Your task to perform on an android device: turn notification dots off Image 0: 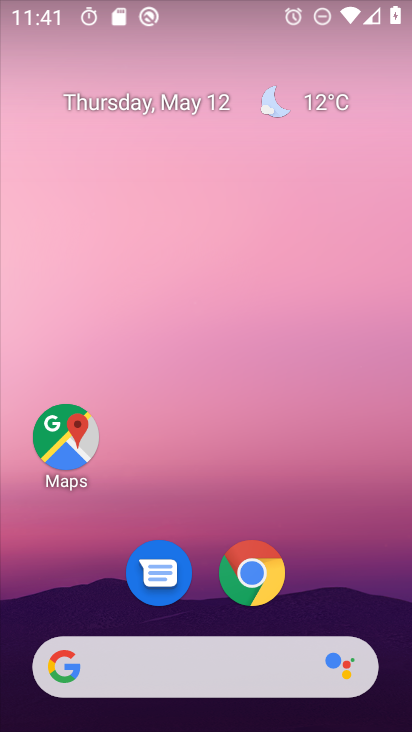
Step 0: drag from (385, 513) to (359, 324)
Your task to perform on an android device: turn notification dots off Image 1: 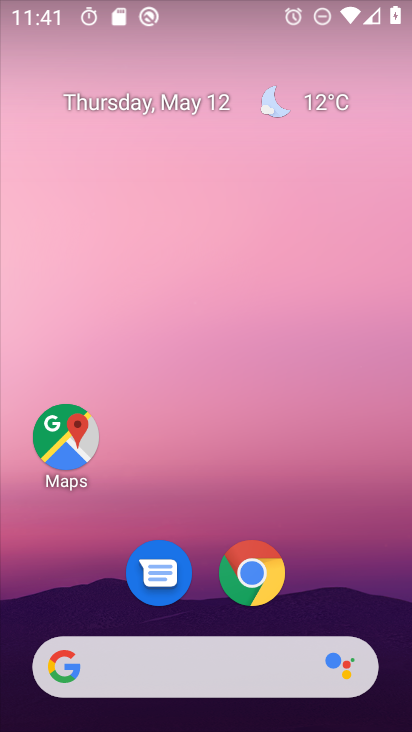
Step 1: drag from (401, 690) to (363, 323)
Your task to perform on an android device: turn notification dots off Image 2: 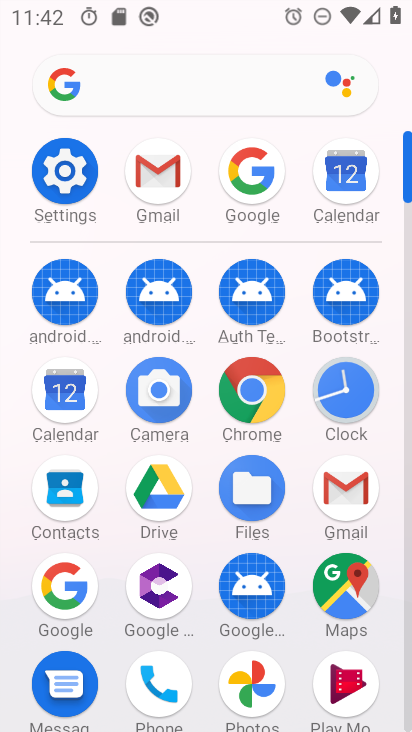
Step 2: click (66, 167)
Your task to perform on an android device: turn notification dots off Image 3: 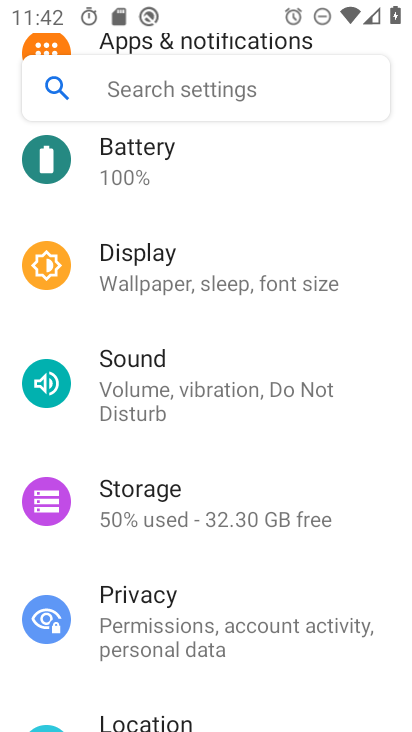
Step 3: drag from (230, 252) to (228, 475)
Your task to perform on an android device: turn notification dots off Image 4: 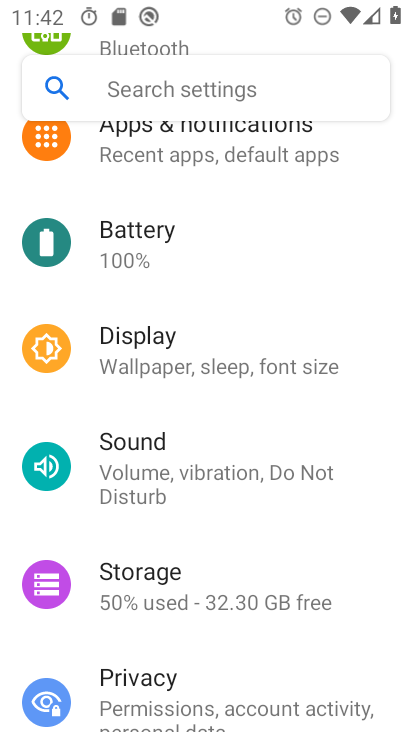
Step 4: drag from (242, 357) to (241, 405)
Your task to perform on an android device: turn notification dots off Image 5: 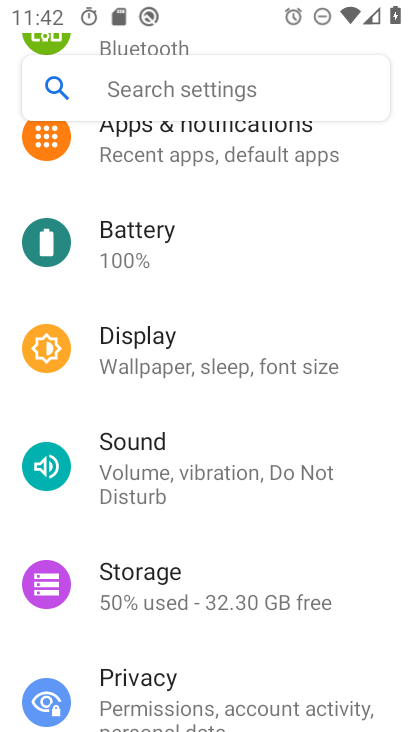
Step 5: click (202, 140)
Your task to perform on an android device: turn notification dots off Image 6: 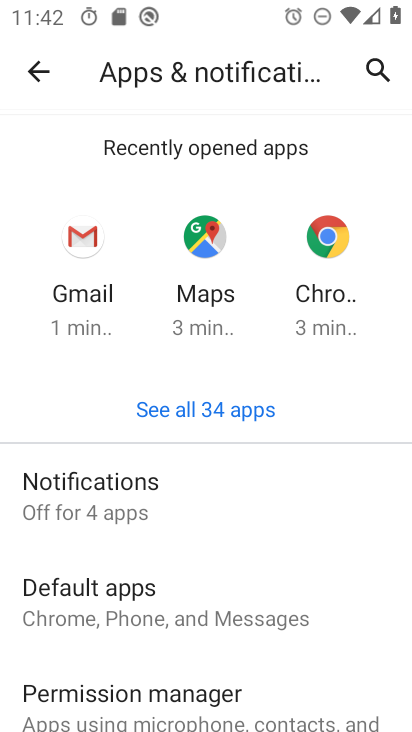
Step 6: drag from (281, 653) to (276, 364)
Your task to perform on an android device: turn notification dots off Image 7: 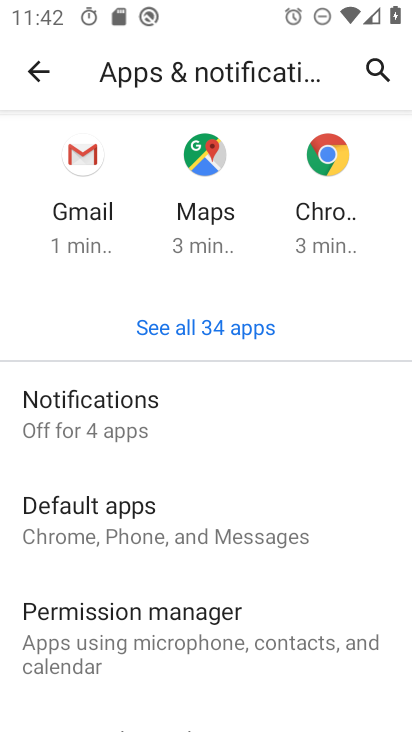
Step 7: drag from (346, 660) to (357, 375)
Your task to perform on an android device: turn notification dots off Image 8: 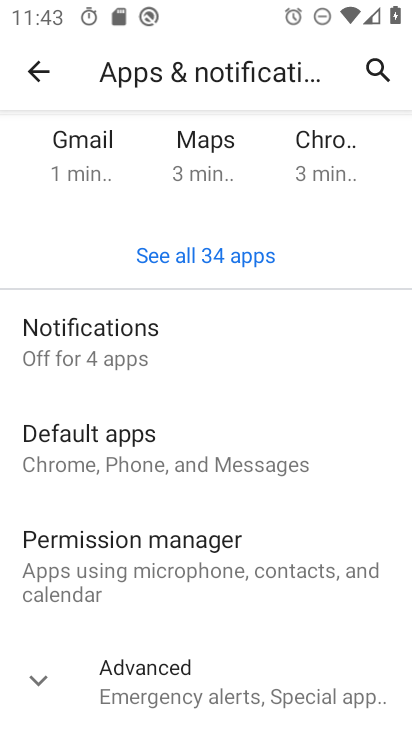
Step 8: click (82, 334)
Your task to perform on an android device: turn notification dots off Image 9: 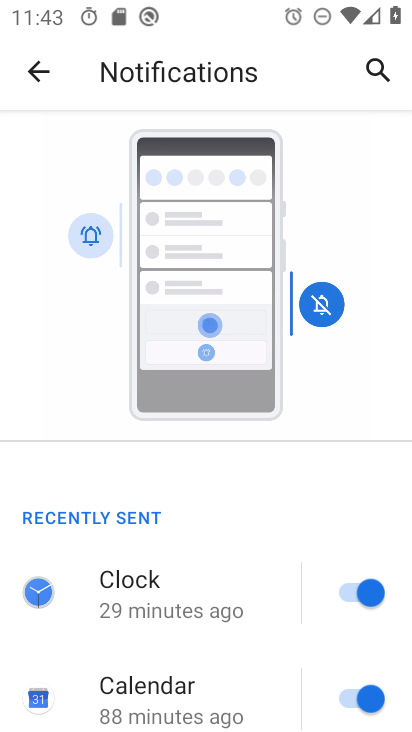
Step 9: drag from (263, 693) to (217, 298)
Your task to perform on an android device: turn notification dots off Image 10: 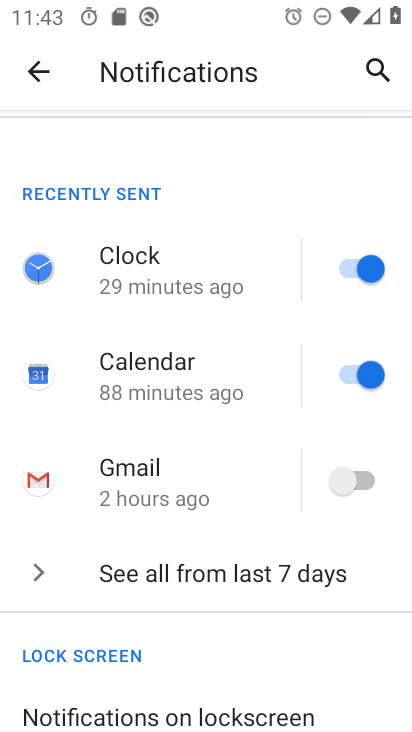
Step 10: drag from (276, 690) to (289, 291)
Your task to perform on an android device: turn notification dots off Image 11: 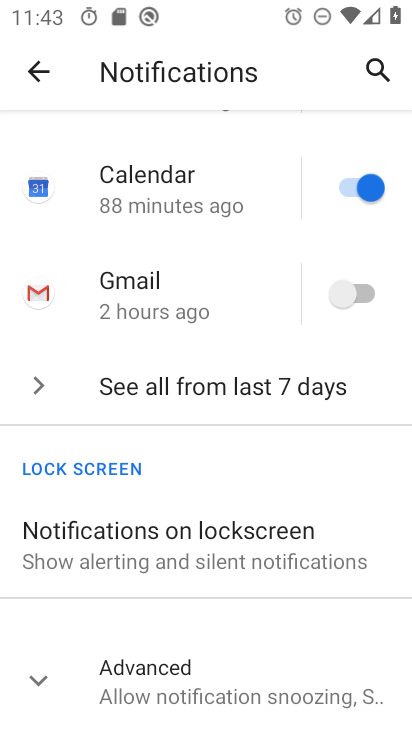
Step 11: drag from (265, 629) to (281, 322)
Your task to perform on an android device: turn notification dots off Image 12: 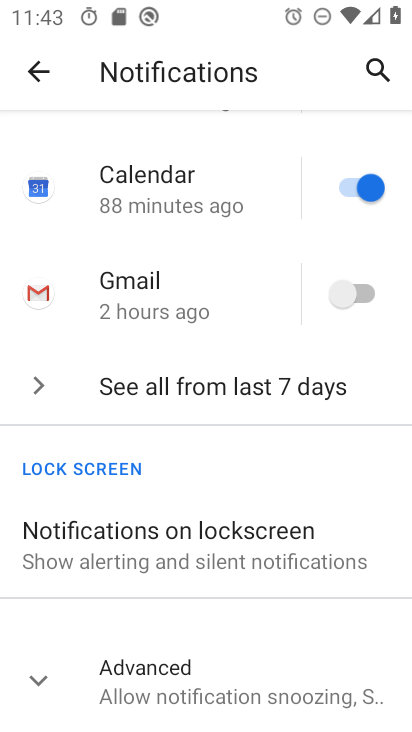
Step 12: click (36, 686)
Your task to perform on an android device: turn notification dots off Image 13: 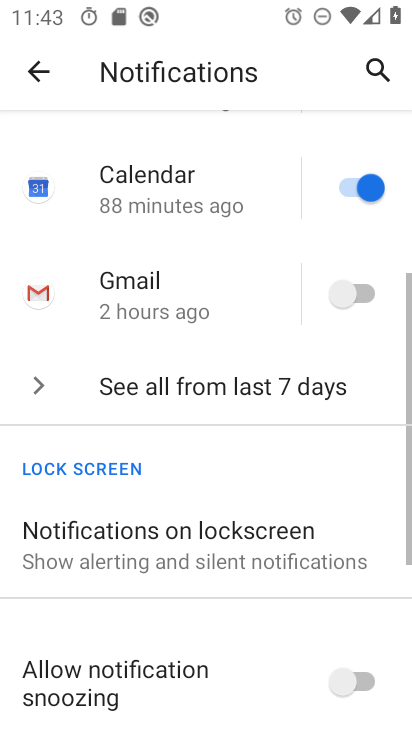
Step 13: drag from (234, 701) to (236, 462)
Your task to perform on an android device: turn notification dots off Image 14: 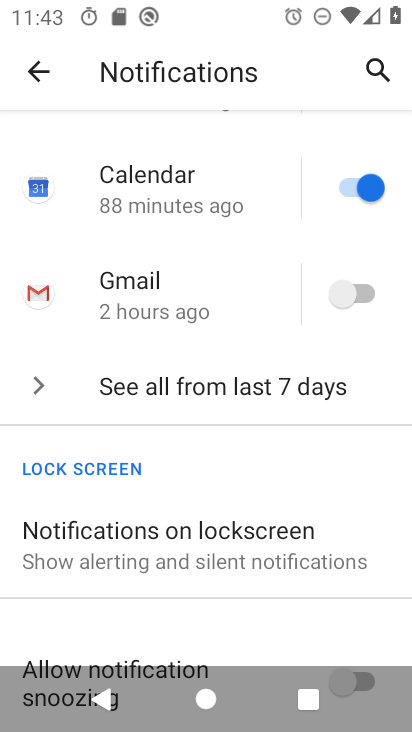
Step 14: drag from (243, 646) to (237, 321)
Your task to perform on an android device: turn notification dots off Image 15: 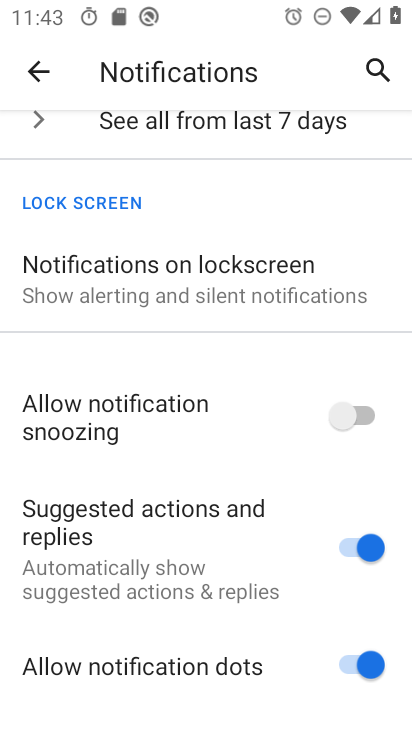
Step 15: drag from (243, 648) to (250, 421)
Your task to perform on an android device: turn notification dots off Image 16: 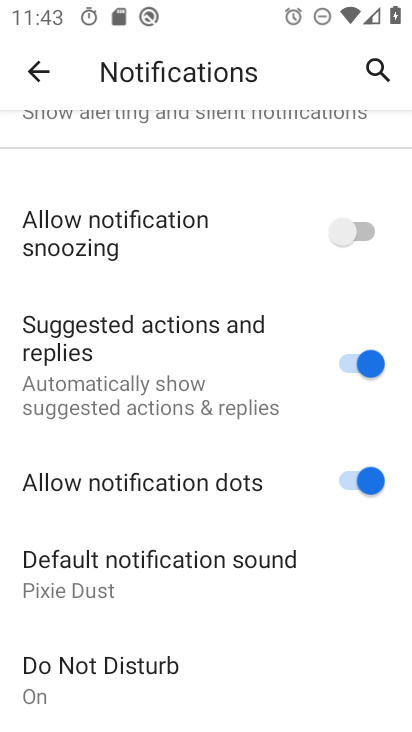
Step 16: click (341, 469)
Your task to perform on an android device: turn notification dots off Image 17: 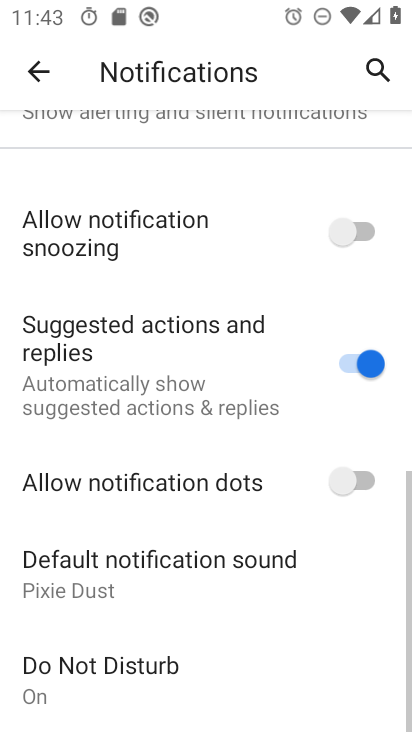
Step 17: task complete